Your task to perform on an android device: Go to battery settings Image 0: 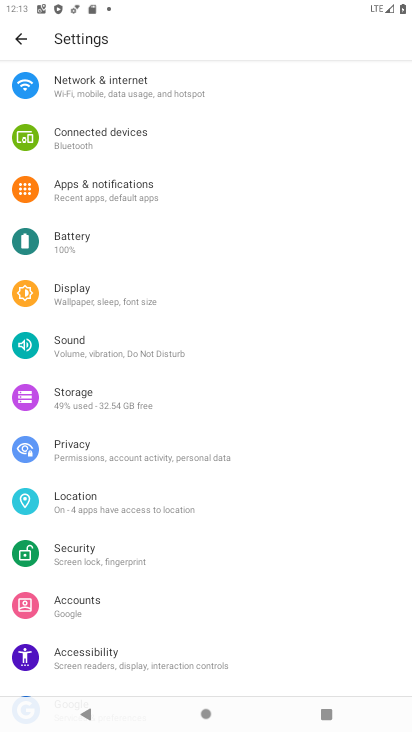
Step 0: click (72, 238)
Your task to perform on an android device: Go to battery settings Image 1: 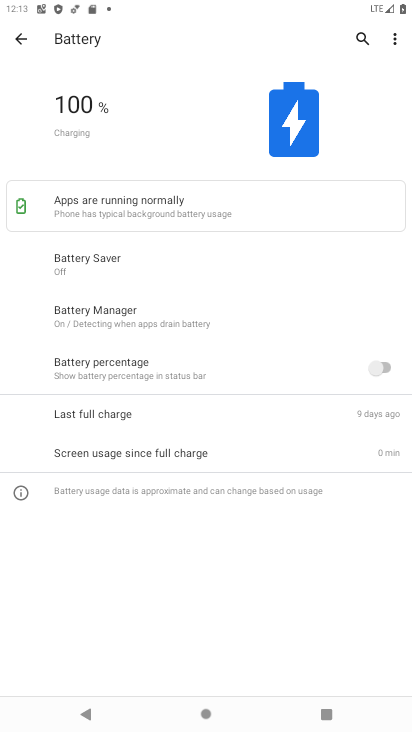
Step 1: task complete